Your task to perform on an android device: read, delete, or share a saved page in the chrome app Image 0: 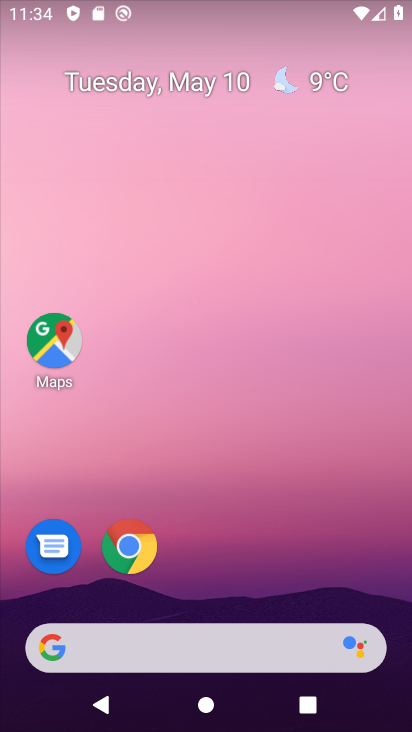
Step 0: drag from (196, 609) to (231, 14)
Your task to perform on an android device: read, delete, or share a saved page in the chrome app Image 1: 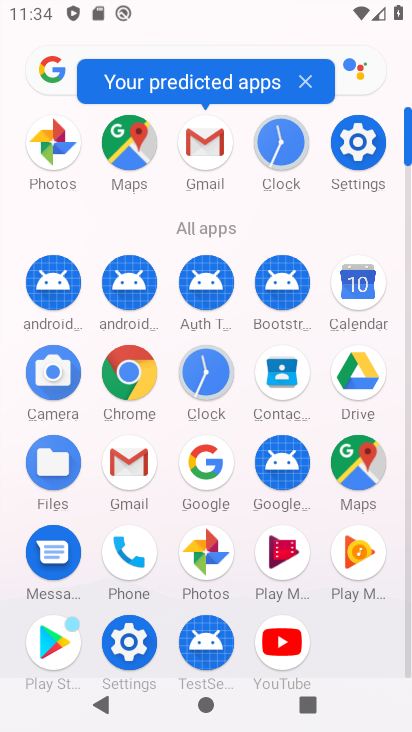
Step 1: click (125, 380)
Your task to perform on an android device: read, delete, or share a saved page in the chrome app Image 2: 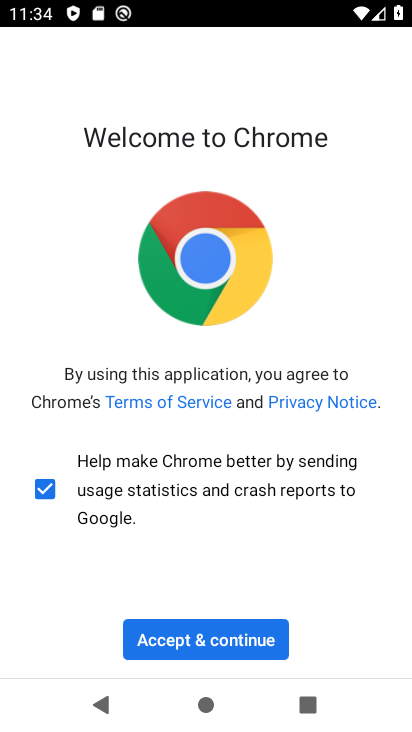
Step 2: click (200, 647)
Your task to perform on an android device: read, delete, or share a saved page in the chrome app Image 3: 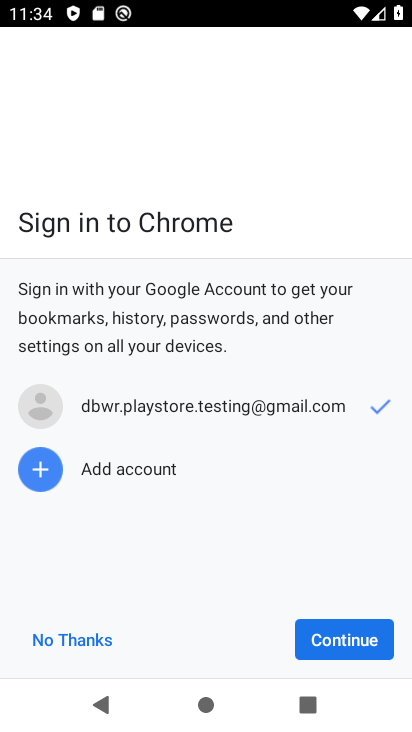
Step 3: click (80, 637)
Your task to perform on an android device: read, delete, or share a saved page in the chrome app Image 4: 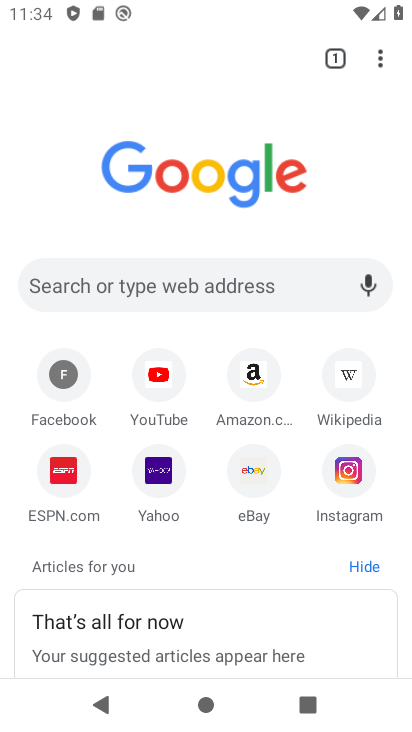
Step 4: drag from (379, 64) to (236, 238)
Your task to perform on an android device: read, delete, or share a saved page in the chrome app Image 5: 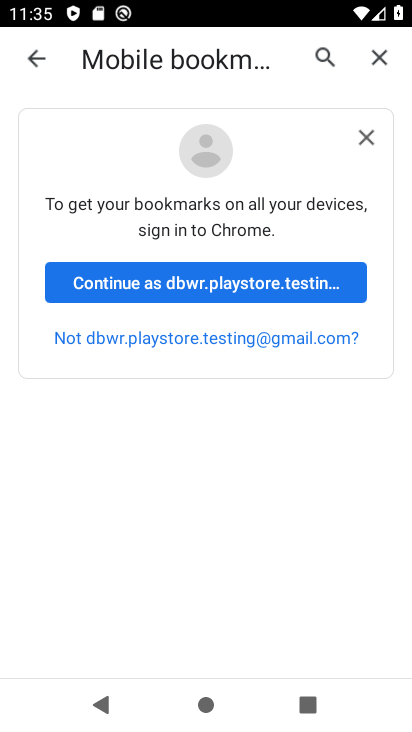
Step 5: drag from (147, 599) to (302, 362)
Your task to perform on an android device: read, delete, or share a saved page in the chrome app Image 6: 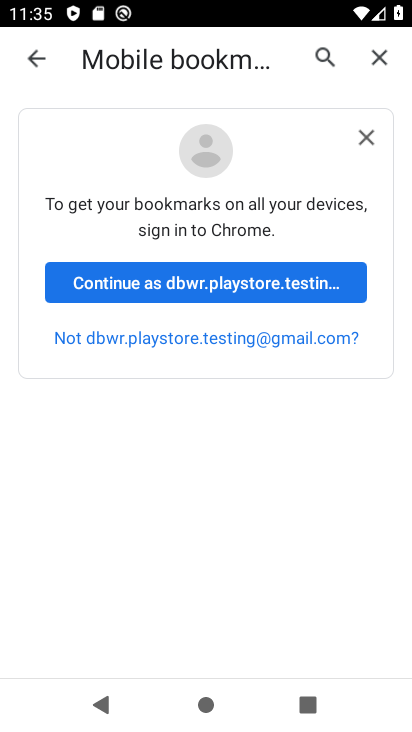
Step 6: drag from (146, 562) to (250, 384)
Your task to perform on an android device: read, delete, or share a saved page in the chrome app Image 7: 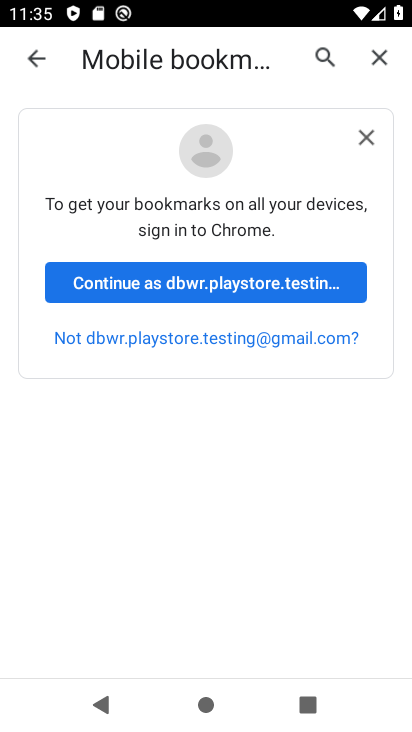
Step 7: click (364, 148)
Your task to perform on an android device: read, delete, or share a saved page in the chrome app Image 8: 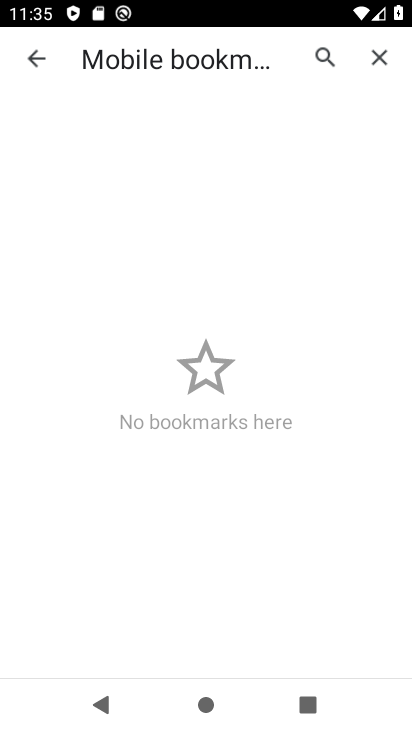
Step 8: task complete